Your task to perform on an android device: Go to Reddit.com Image 0: 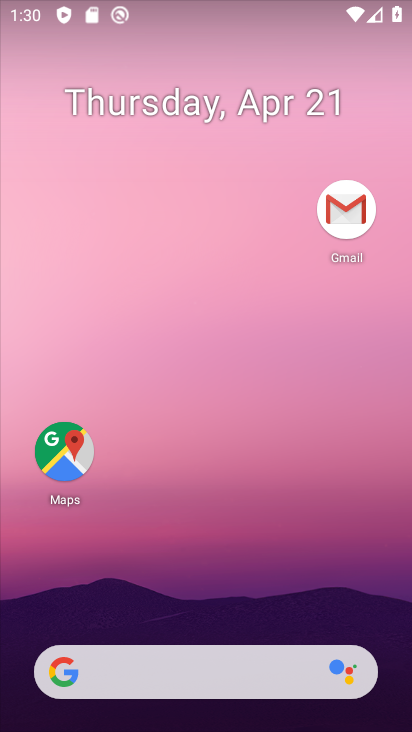
Step 0: drag from (218, 641) to (175, 102)
Your task to perform on an android device: Go to Reddit.com Image 1: 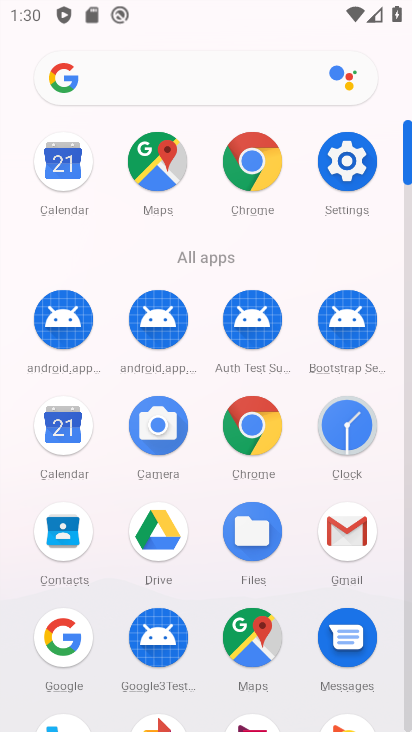
Step 1: click (246, 424)
Your task to perform on an android device: Go to Reddit.com Image 2: 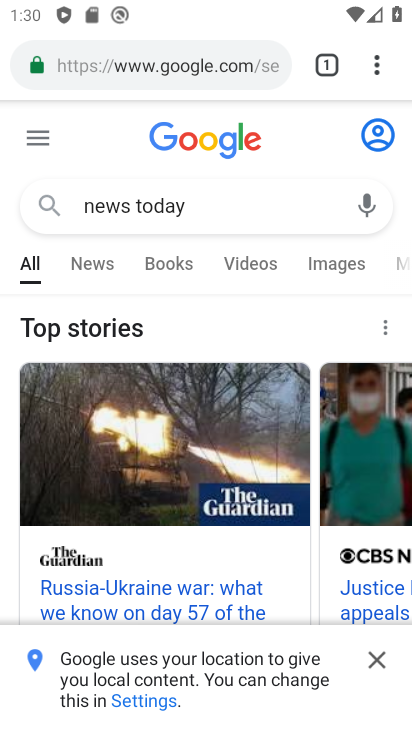
Step 2: click (198, 63)
Your task to perform on an android device: Go to Reddit.com Image 3: 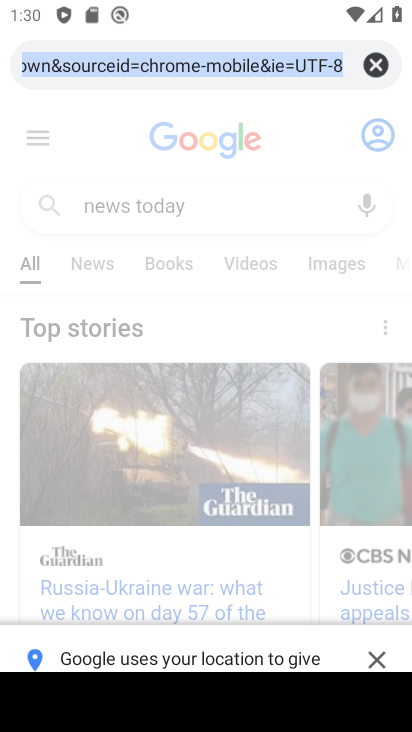
Step 3: click (378, 71)
Your task to perform on an android device: Go to Reddit.com Image 4: 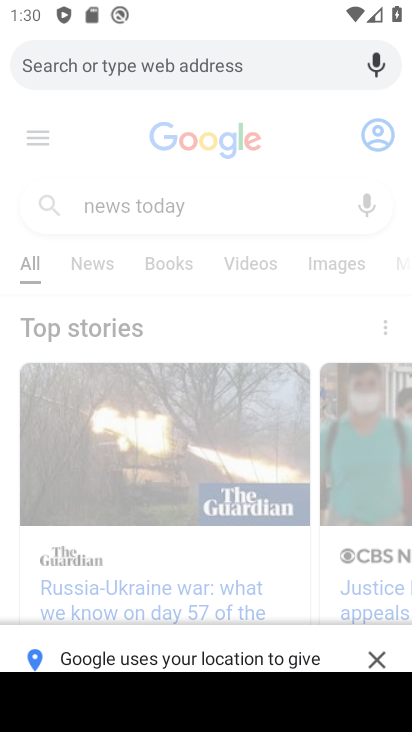
Step 4: type "reddit.com"
Your task to perform on an android device: Go to Reddit.com Image 5: 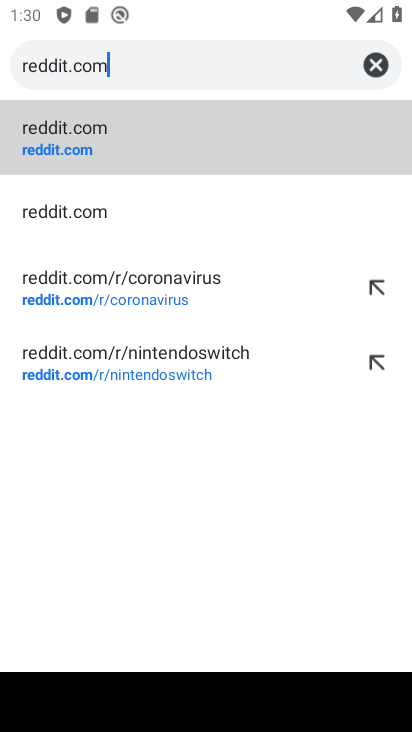
Step 5: click (250, 141)
Your task to perform on an android device: Go to Reddit.com Image 6: 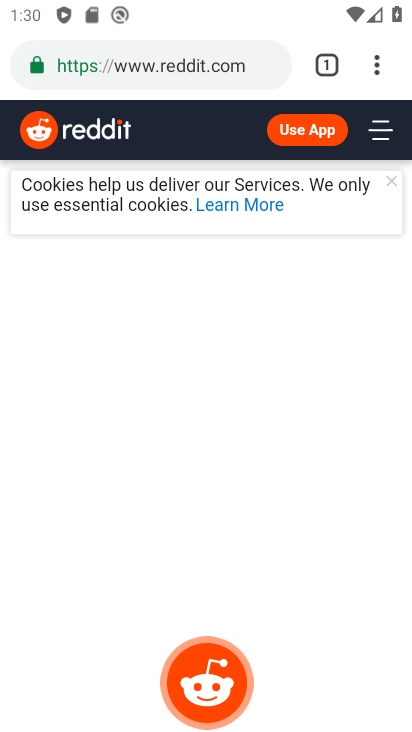
Step 6: task complete